Your task to perform on an android device: Open calendar and show me the first week of next month Image 0: 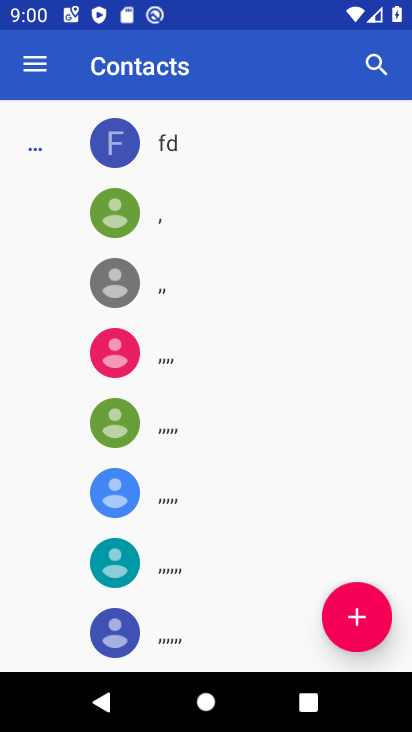
Step 0: press back button
Your task to perform on an android device: Open calendar and show me the first week of next month Image 1: 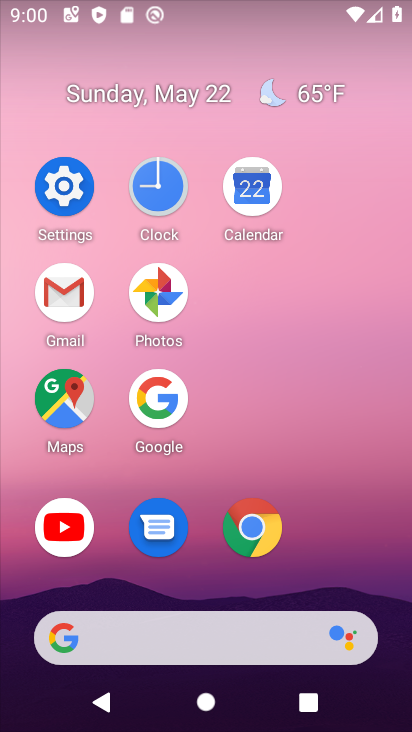
Step 1: press home button
Your task to perform on an android device: Open calendar and show me the first week of next month Image 2: 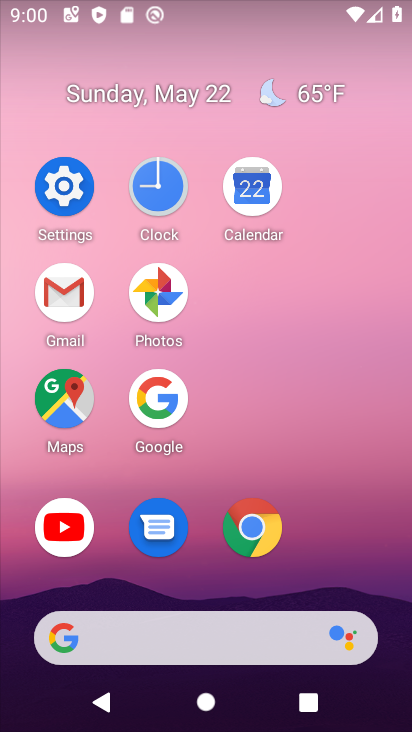
Step 2: click (265, 173)
Your task to perform on an android device: Open calendar and show me the first week of next month Image 3: 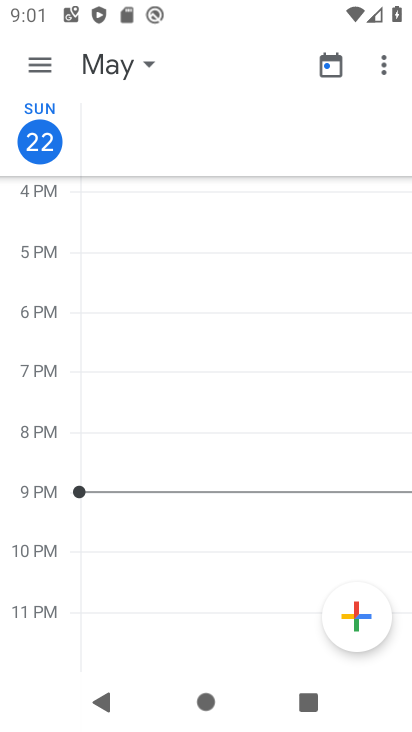
Step 3: click (123, 66)
Your task to perform on an android device: Open calendar and show me the first week of next month Image 4: 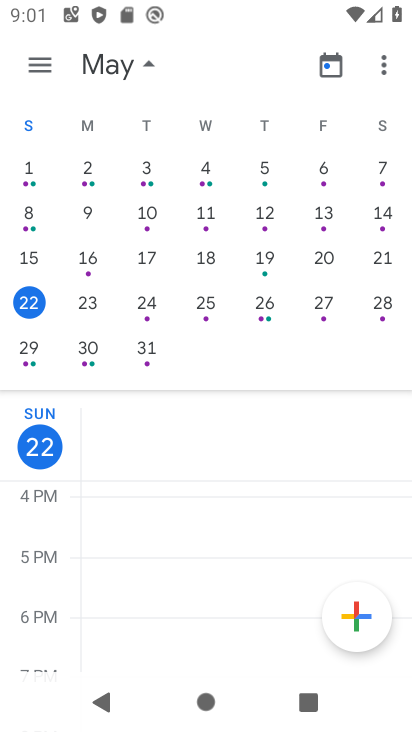
Step 4: drag from (364, 242) to (29, 240)
Your task to perform on an android device: Open calendar and show me the first week of next month Image 5: 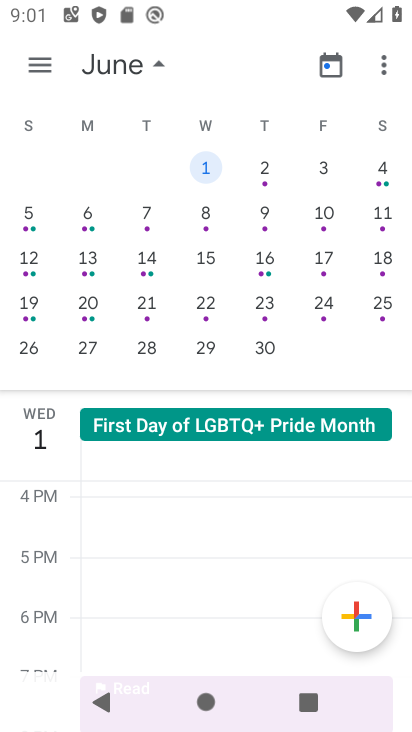
Step 5: drag from (388, 272) to (227, 256)
Your task to perform on an android device: Open calendar and show me the first week of next month Image 6: 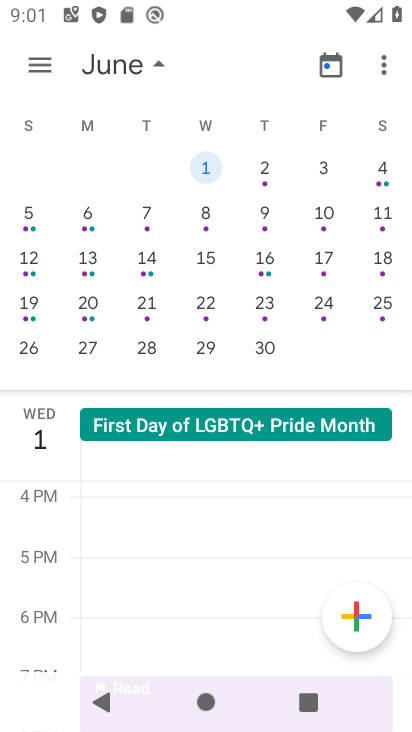
Step 6: click (31, 68)
Your task to perform on an android device: Open calendar and show me the first week of next month Image 7: 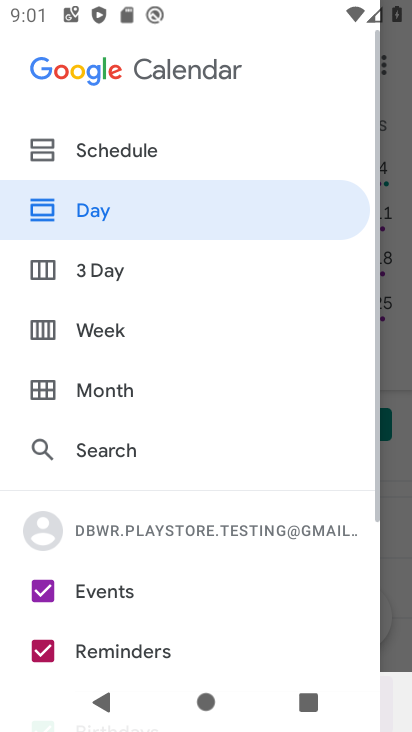
Step 7: click (142, 335)
Your task to perform on an android device: Open calendar and show me the first week of next month Image 8: 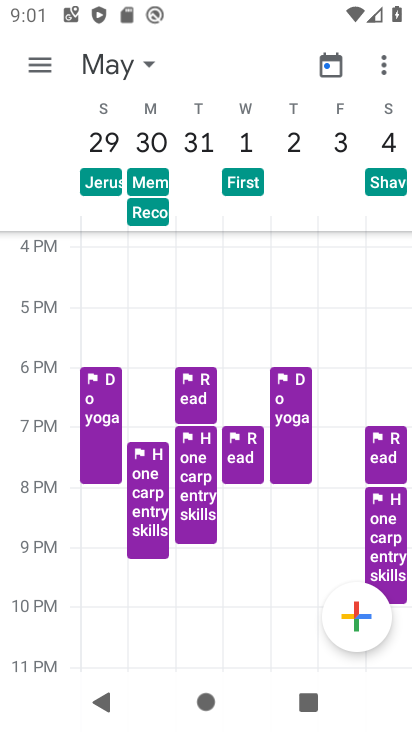
Step 8: task complete